Your task to perform on an android device: allow cookies in the chrome app Image 0: 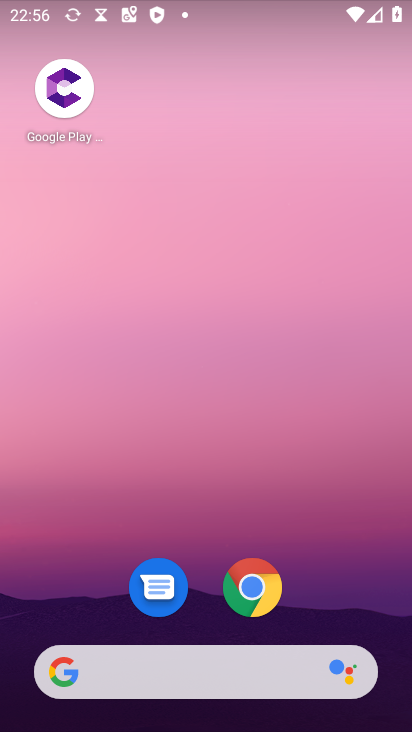
Step 0: drag from (341, 592) to (193, 1)
Your task to perform on an android device: allow cookies in the chrome app Image 1: 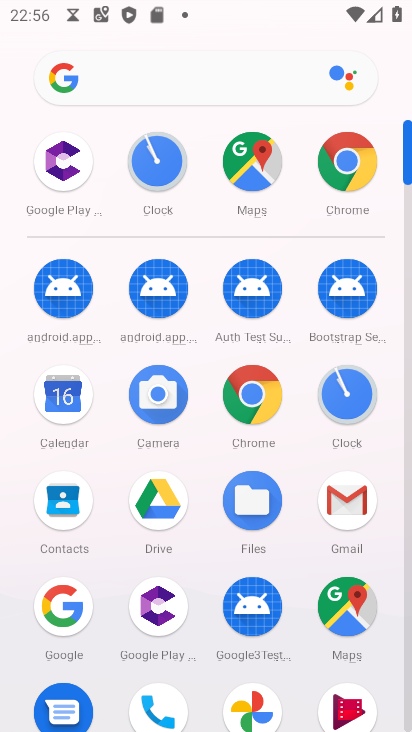
Step 1: drag from (16, 499) to (28, 204)
Your task to perform on an android device: allow cookies in the chrome app Image 2: 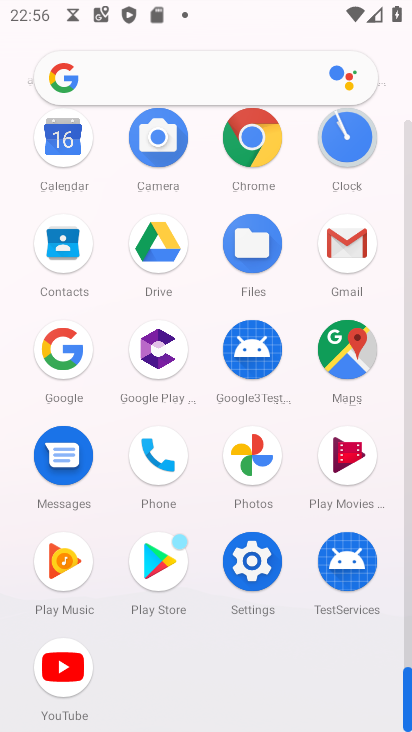
Step 2: click (254, 135)
Your task to perform on an android device: allow cookies in the chrome app Image 3: 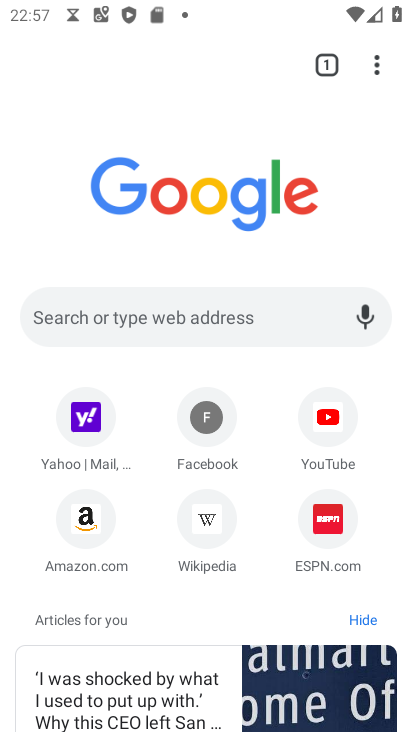
Step 3: drag from (374, 59) to (205, 549)
Your task to perform on an android device: allow cookies in the chrome app Image 4: 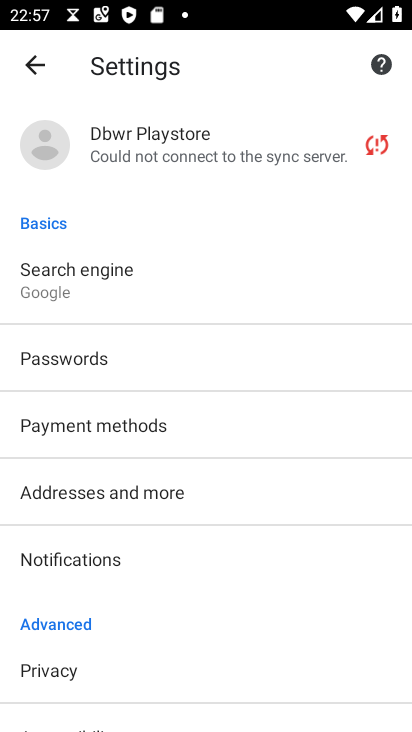
Step 4: drag from (188, 627) to (241, 203)
Your task to perform on an android device: allow cookies in the chrome app Image 5: 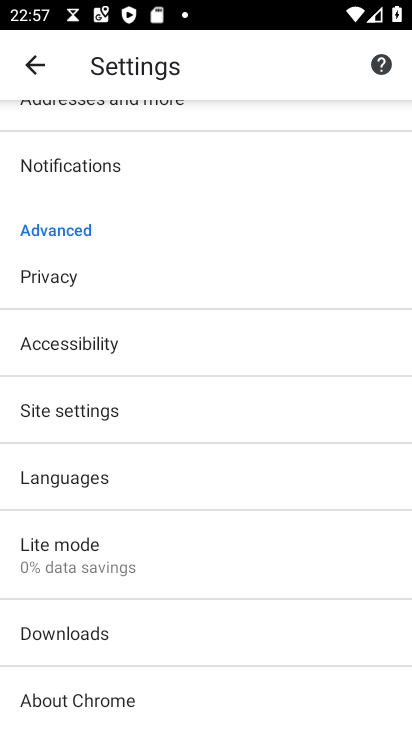
Step 5: click (112, 414)
Your task to perform on an android device: allow cookies in the chrome app Image 6: 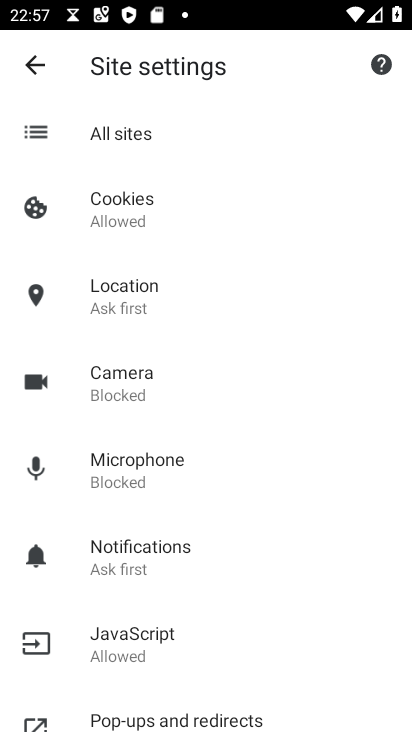
Step 6: task complete